Your task to perform on an android device: Open calendar and show me the third week of next month Image 0: 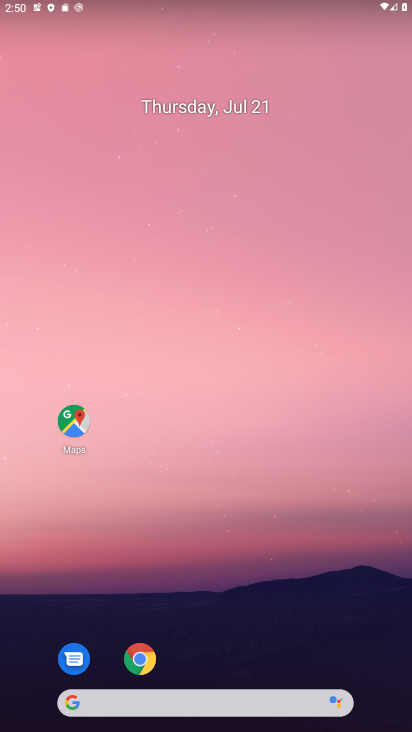
Step 0: drag from (265, 648) to (161, 31)
Your task to perform on an android device: Open calendar and show me the third week of next month Image 1: 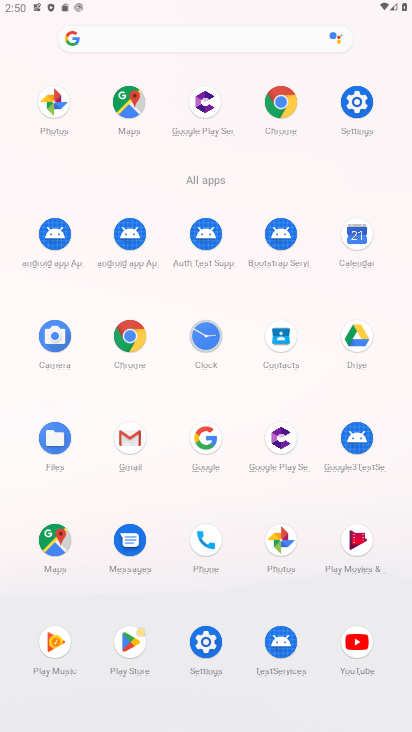
Step 1: click (365, 237)
Your task to perform on an android device: Open calendar and show me the third week of next month Image 2: 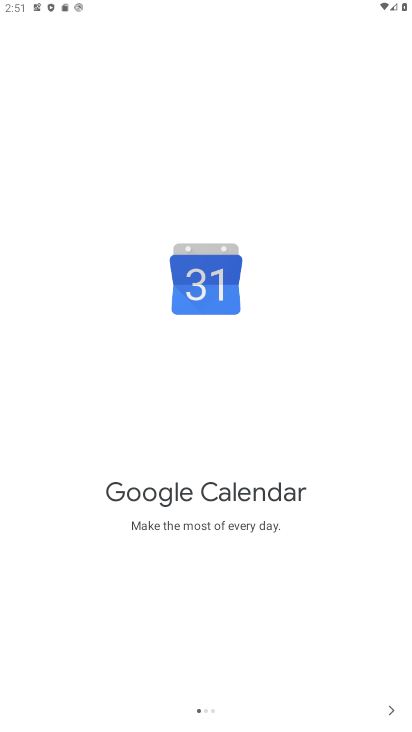
Step 2: click (393, 716)
Your task to perform on an android device: Open calendar and show me the third week of next month Image 3: 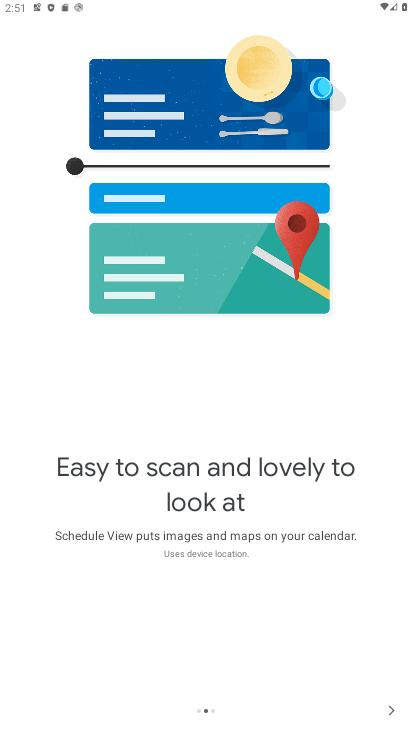
Step 3: click (393, 716)
Your task to perform on an android device: Open calendar and show me the third week of next month Image 4: 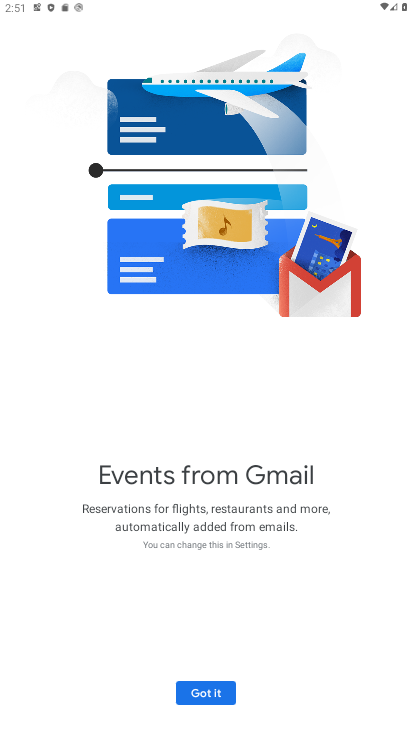
Step 4: click (217, 688)
Your task to perform on an android device: Open calendar and show me the third week of next month Image 5: 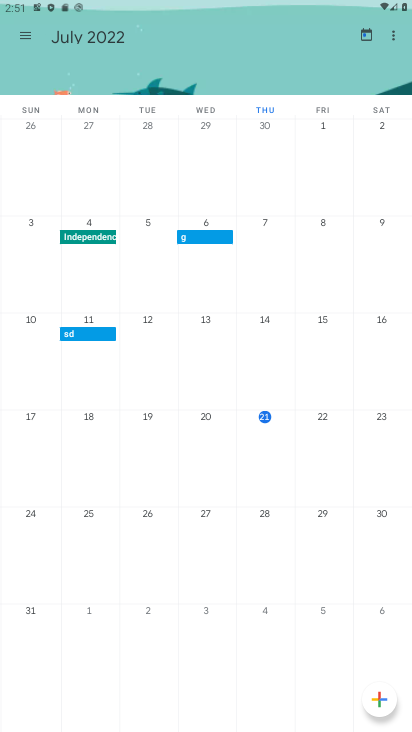
Step 5: click (26, 34)
Your task to perform on an android device: Open calendar and show me the third week of next month Image 6: 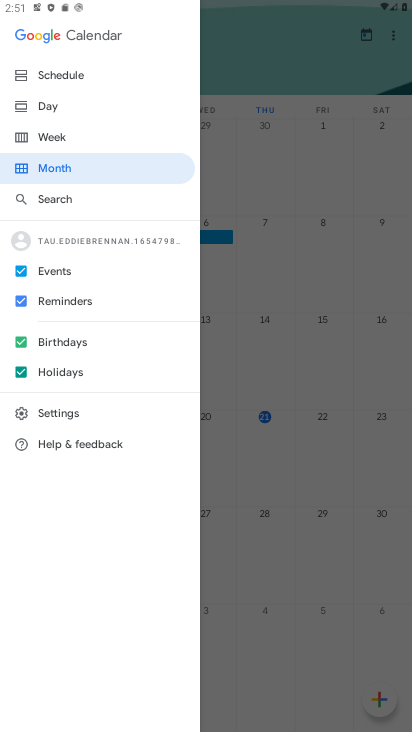
Step 6: click (18, 370)
Your task to perform on an android device: Open calendar and show me the third week of next month Image 7: 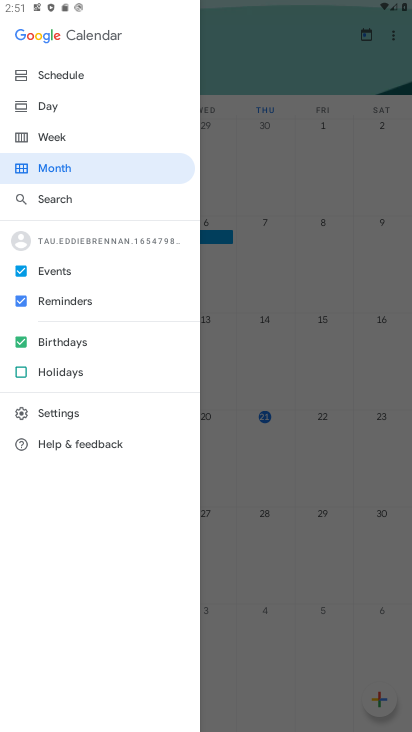
Step 7: click (19, 343)
Your task to perform on an android device: Open calendar and show me the third week of next month Image 8: 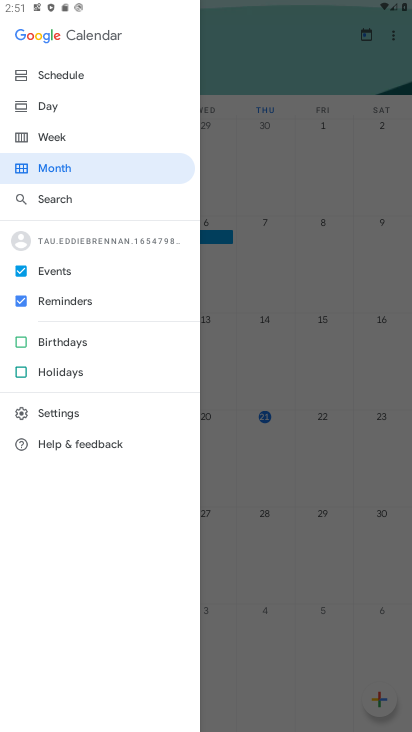
Step 8: click (18, 301)
Your task to perform on an android device: Open calendar and show me the third week of next month Image 9: 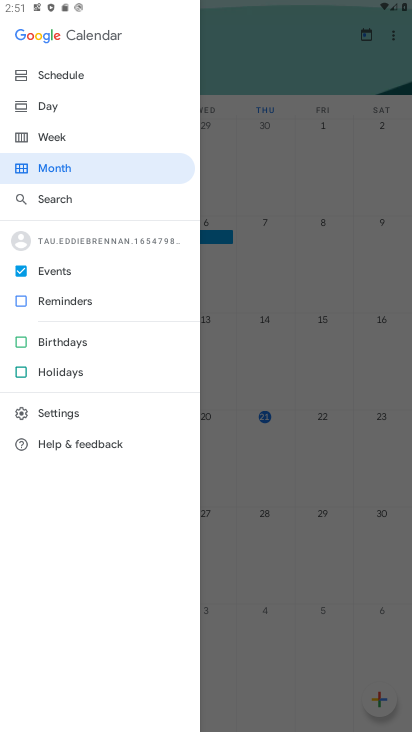
Step 9: click (67, 135)
Your task to perform on an android device: Open calendar and show me the third week of next month Image 10: 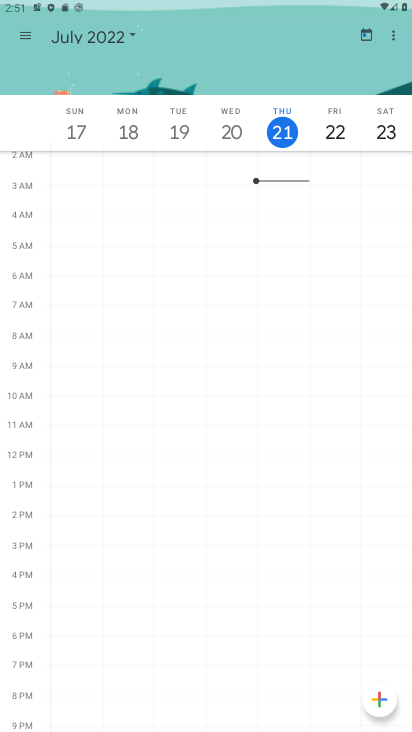
Step 10: click (127, 32)
Your task to perform on an android device: Open calendar and show me the third week of next month Image 11: 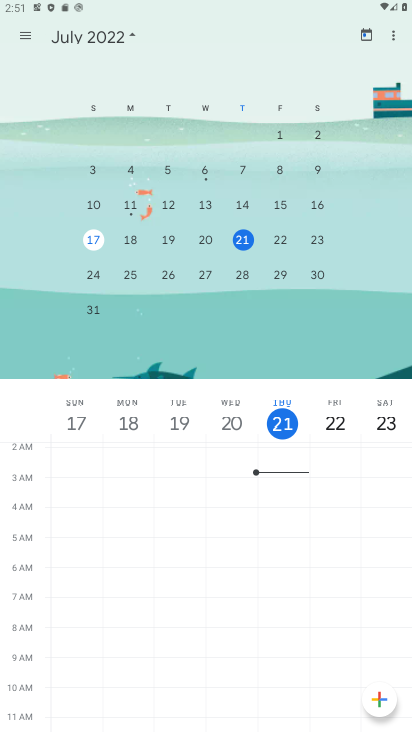
Step 11: drag from (340, 215) to (29, 198)
Your task to perform on an android device: Open calendar and show me the third week of next month Image 12: 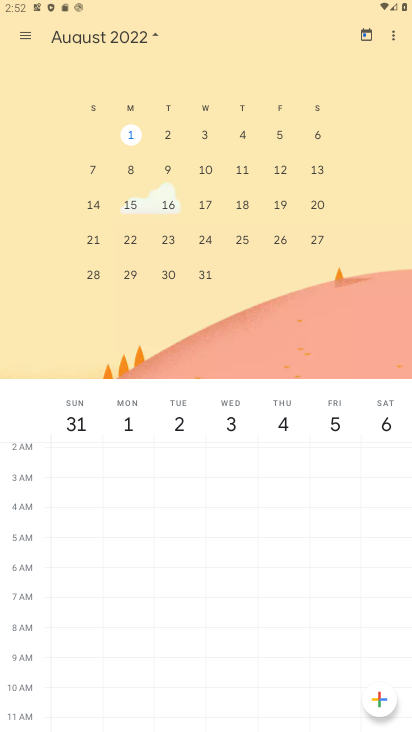
Step 12: click (202, 209)
Your task to perform on an android device: Open calendar and show me the third week of next month Image 13: 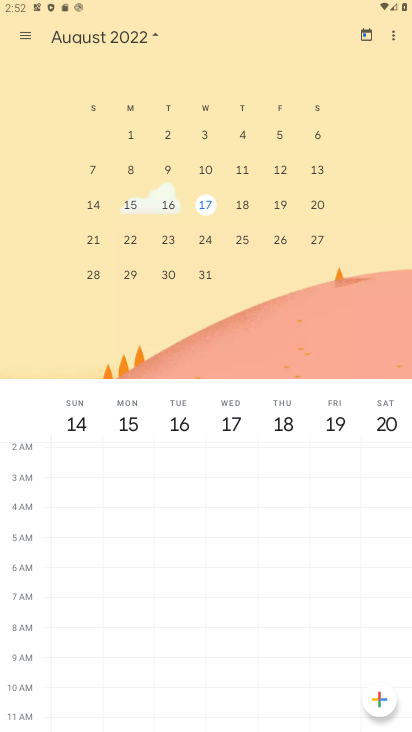
Step 13: task complete